Your task to perform on an android device: stop showing notifications on the lock screen Image 0: 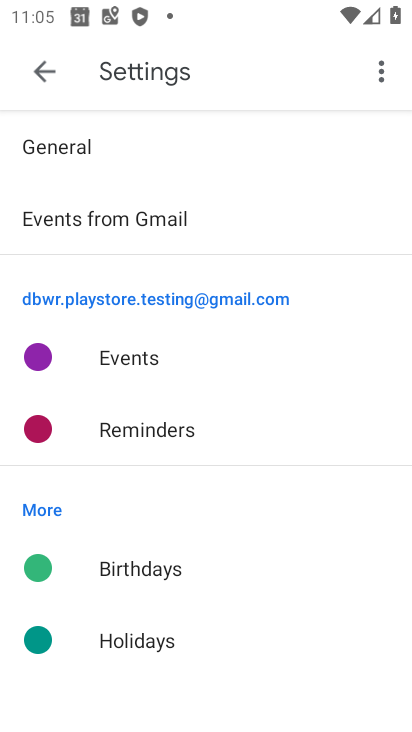
Step 0: drag from (226, 615) to (318, 264)
Your task to perform on an android device: stop showing notifications on the lock screen Image 1: 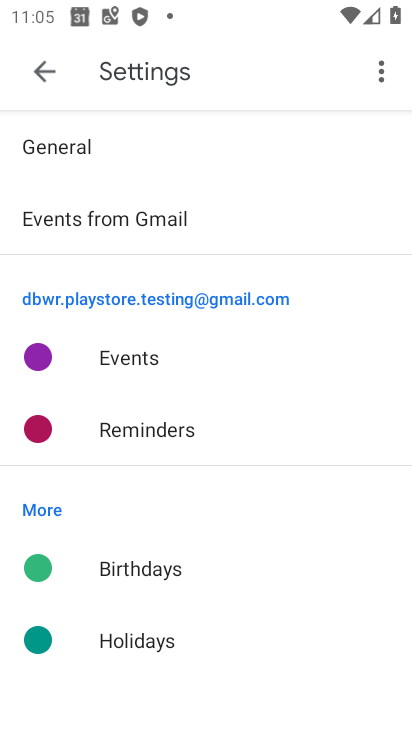
Step 1: press home button
Your task to perform on an android device: stop showing notifications on the lock screen Image 2: 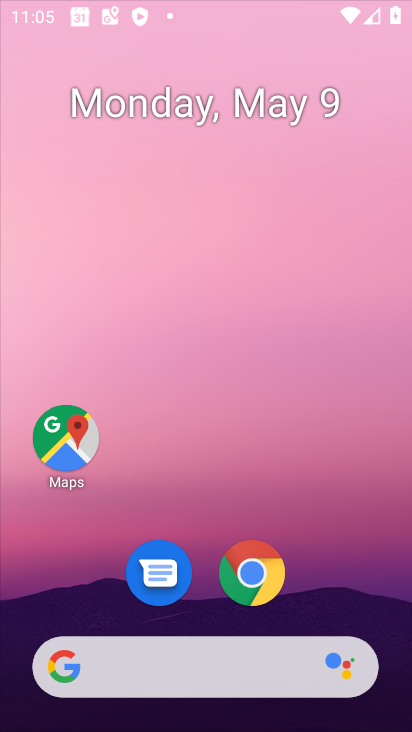
Step 2: drag from (198, 599) to (317, 203)
Your task to perform on an android device: stop showing notifications on the lock screen Image 3: 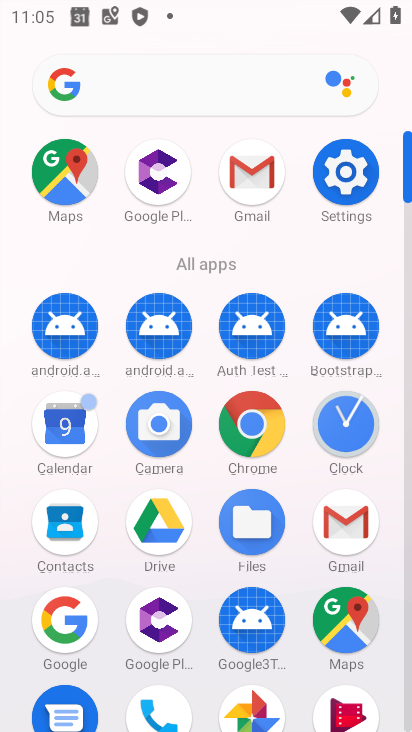
Step 3: click (344, 163)
Your task to perform on an android device: stop showing notifications on the lock screen Image 4: 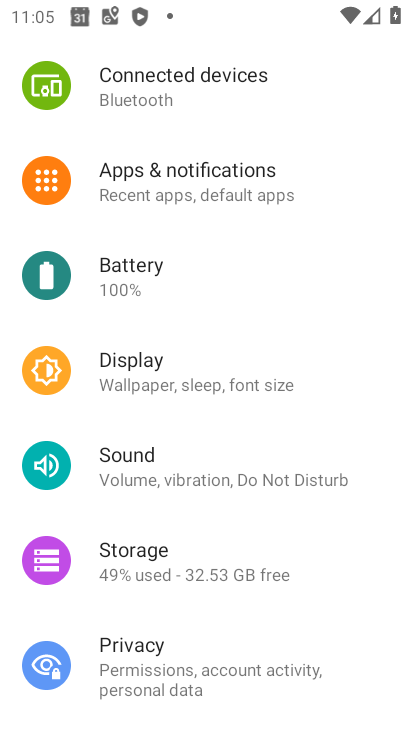
Step 4: click (252, 193)
Your task to perform on an android device: stop showing notifications on the lock screen Image 5: 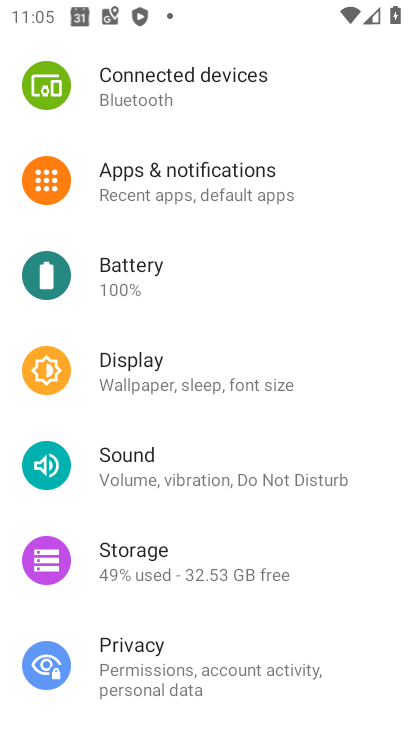
Step 5: click (252, 193)
Your task to perform on an android device: stop showing notifications on the lock screen Image 6: 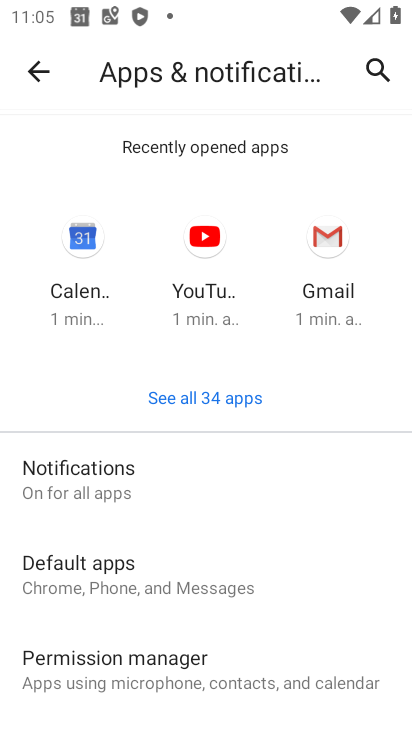
Step 6: click (153, 481)
Your task to perform on an android device: stop showing notifications on the lock screen Image 7: 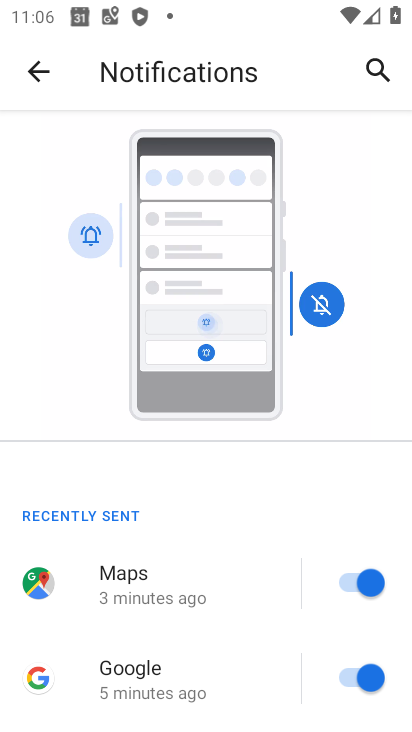
Step 7: drag from (276, 474) to (411, 239)
Your task to perform on an android device: stop showing notifications on the lock screen Image 8: 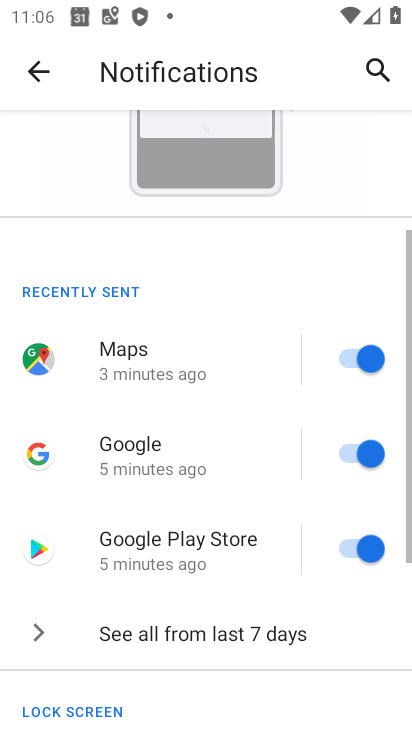
Step 8: drag from (214, 598) to (332, 117)
Your task to perform on an android device: stop showing notifications on the lock screen Image 9: 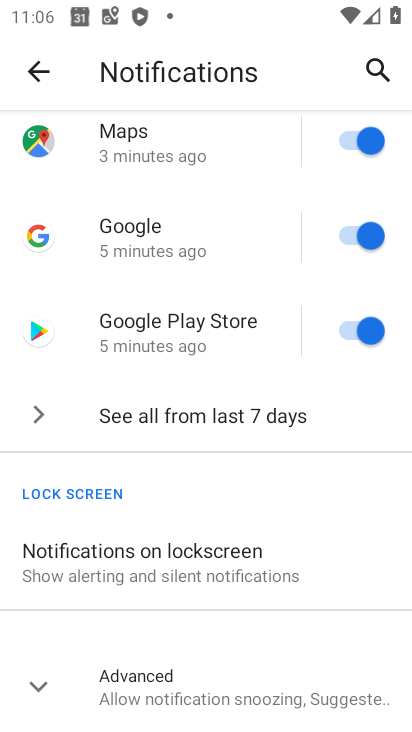
Step 9: click (166, 566)
Your task to perform on an android device: stop showing notifications on the lock screen Image 10: 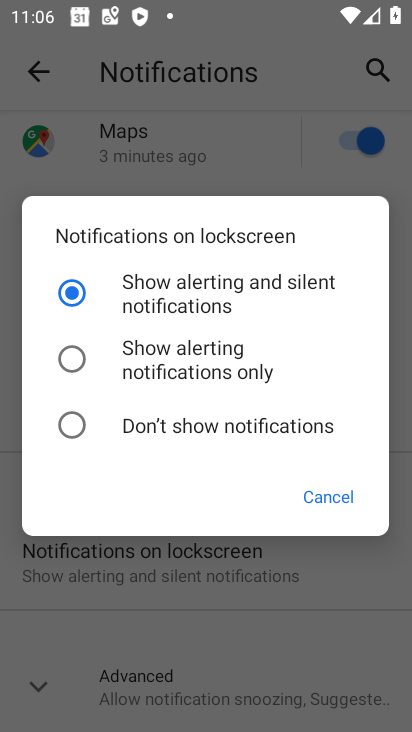
Step 10: click (212, 355)
Your task to perform on an android device: stop showing notifications on the lock screen Image 11: 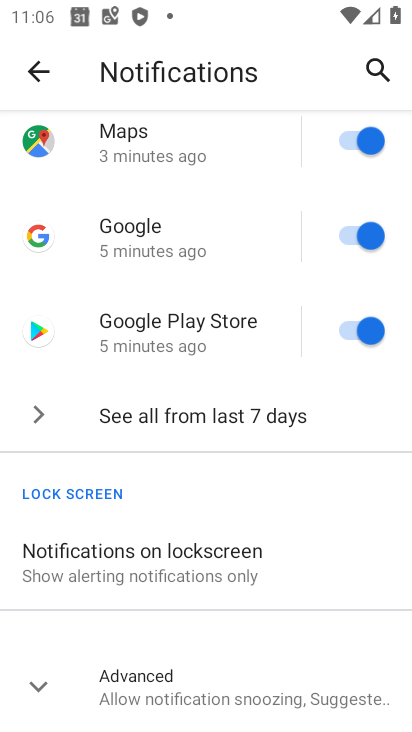
Step 11: click (83, 552)
Your task to perform on an android device: stop showing notifications on the lock screen Image 12: 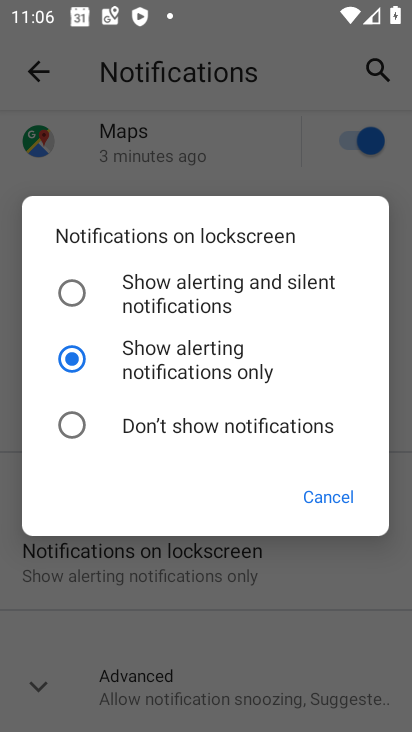
Step 12: click (225, 425)
Your task to perform on an android device: stop showing notifications on the lock screen Image 13: 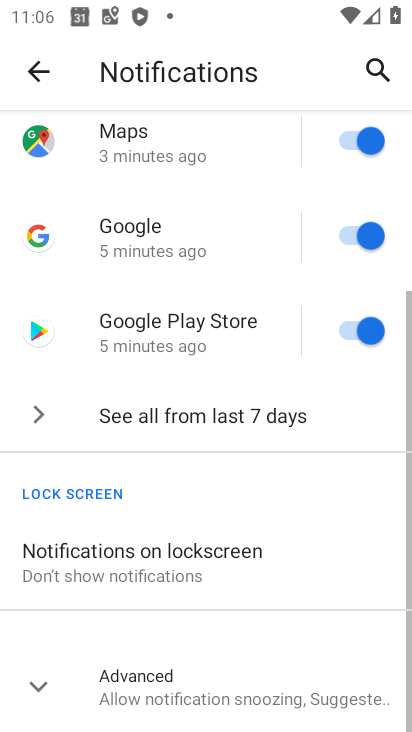
Step 13: task complete